Your task to perform on an android device: toggle show notifications on the lock screen Image 0: 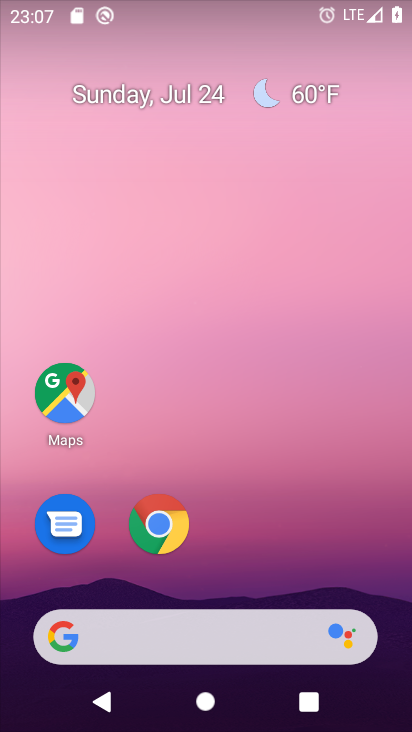
Step 0: drag from (263, 543) to (353, 0)
Your task to perform on an android device: toggle show notifications on the lock screen Image 1: 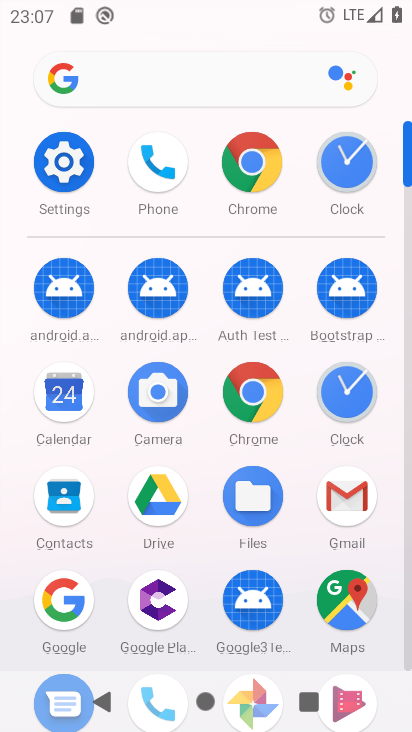
Step 1: click (73, 155)
Your task to perform on an android device: toggle show notifications on the lock screen Image 2: 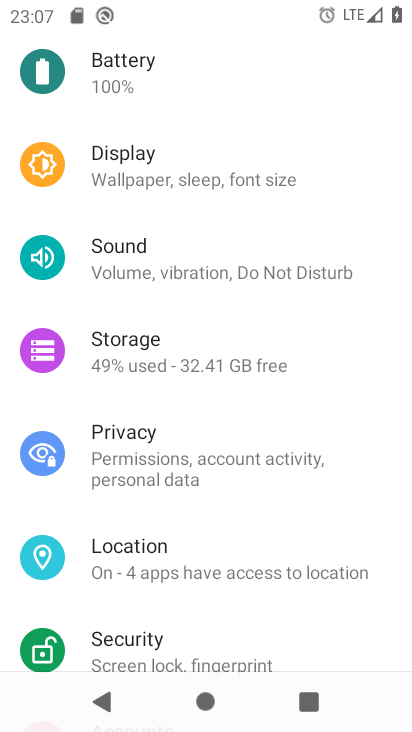
Step 2: drag from (181, 220) to (199, 289)
Your task to perform on an android device: toggle show notifications on the lock screen Image 3: 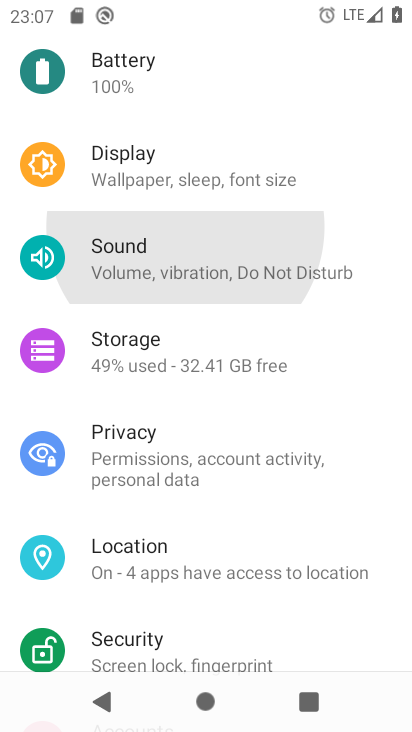
Step 3: drag from (202, 333) to (187, 565)
Your task to perform on an android device: toggle show notifications on the lock screen Image 4: 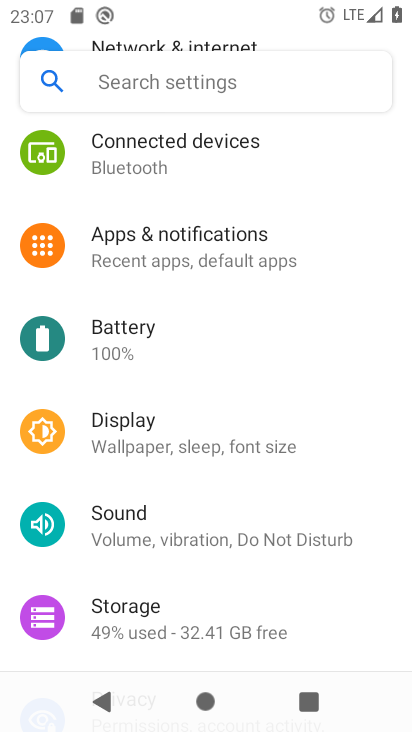
Step 4: click (211, 247)
Your task to perform on an android device: toggle show notifications on the lock screen Image 5: 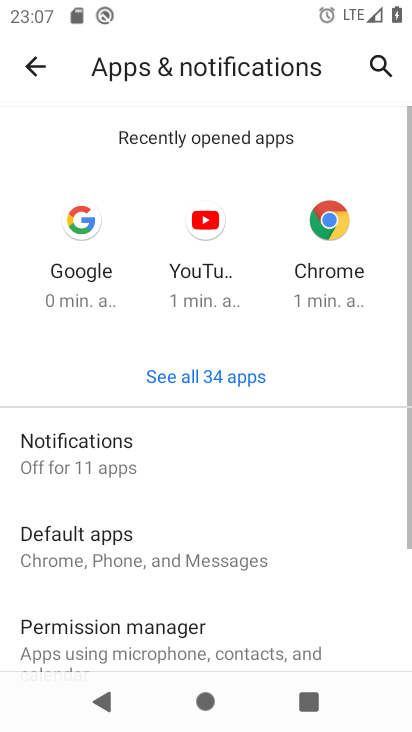
Step 5: click (114, 451)
Your task to perform on an android device: toggle show notifications on the lock screen Image 6: 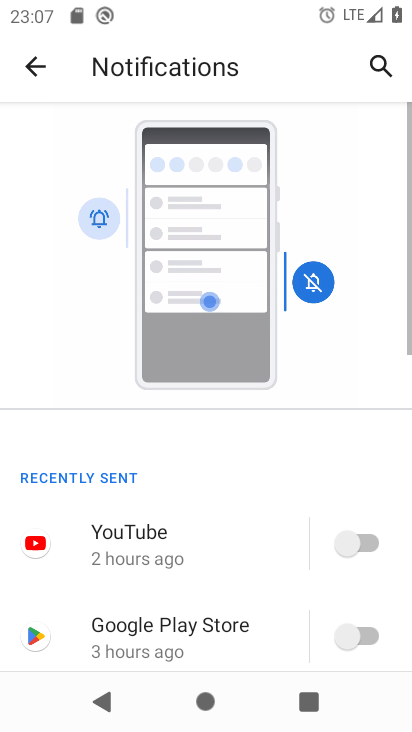
Step 6: drag from (233, 523) to (267, 0)
Your task to perform on an android device: toggle show notifications on the lock screen Image 7: 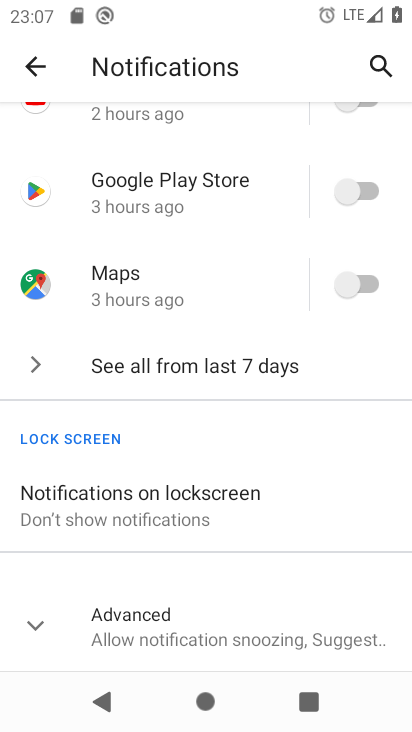
Step 7: click (184, 503)
Your task to perform on an android device: toggle show notifications on the lock screen Image 8: 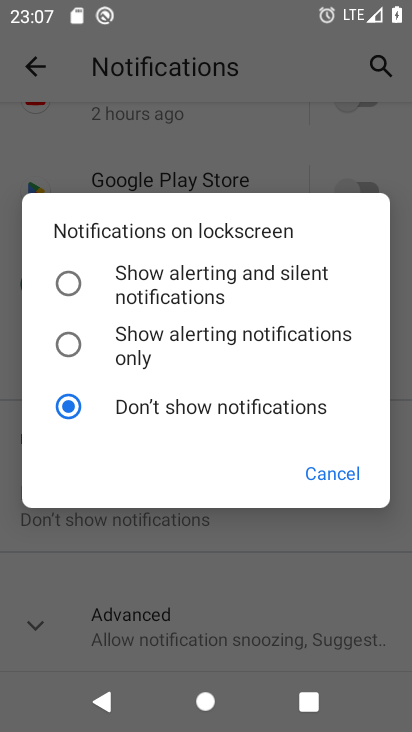
Step 8: click (63, 273)
Your task to perform on an android device: toggle show notifications on the lock screen Image 9: 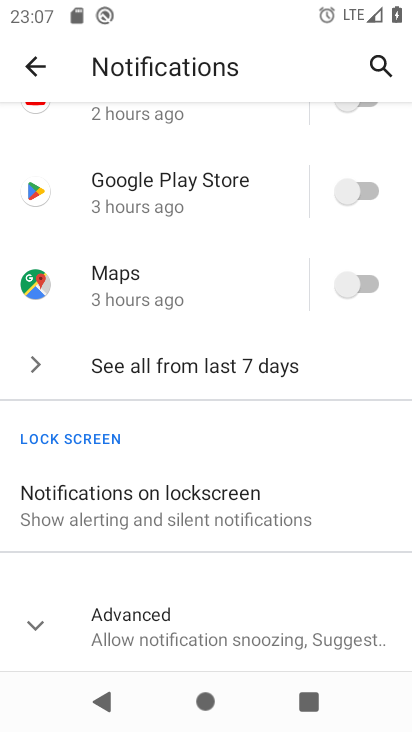
Step 9: task complete